Your task to perform on an android device: What's the weather today? Image 0: 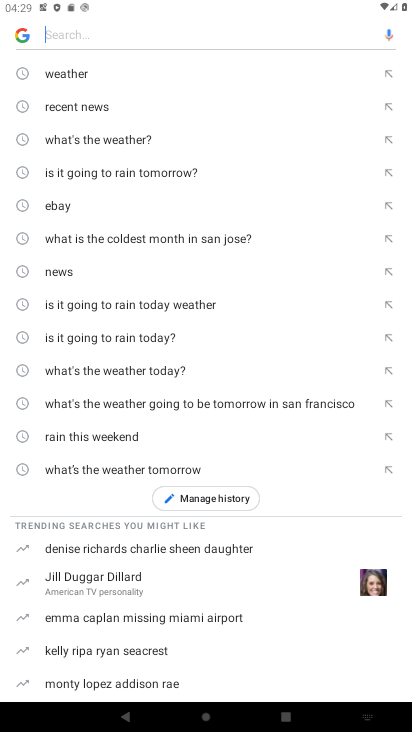
Step 0: press home button
Your task to perform on an android device: What's the weather today? Image 1: 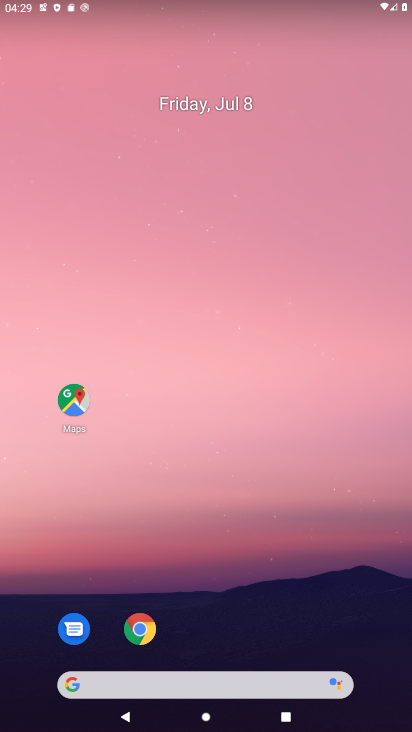
Step 1: drag from (234, 722) to (207, 130)
Your task to perform on an android device: What's the weather today? Image 2: 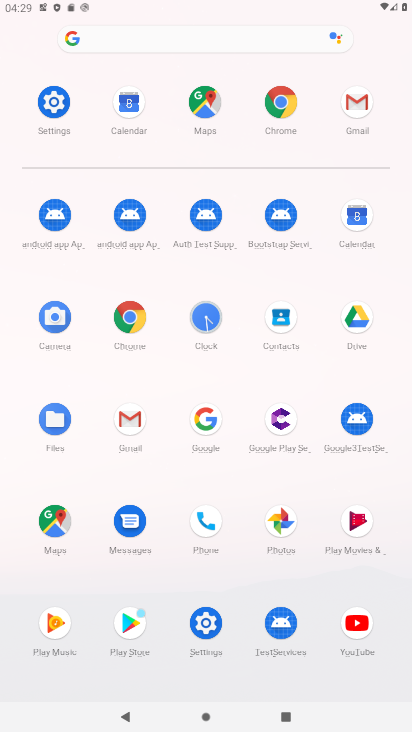
Step 2: click (209, 421)
Your task to perform on an android device: What's the weather today? Image 3: 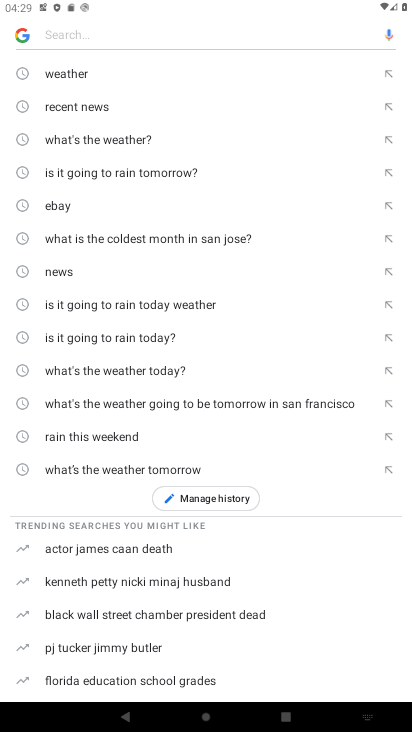
Step 3: click (60, 71)
Your task to perform on an android device: What's the weather today? Image 4: 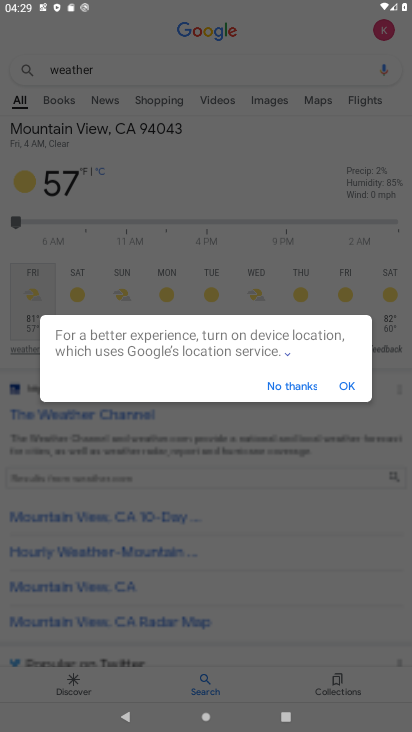
Step 4: click (295, 386)
Your task to perform on an android device: What's the weather today? Image 5: 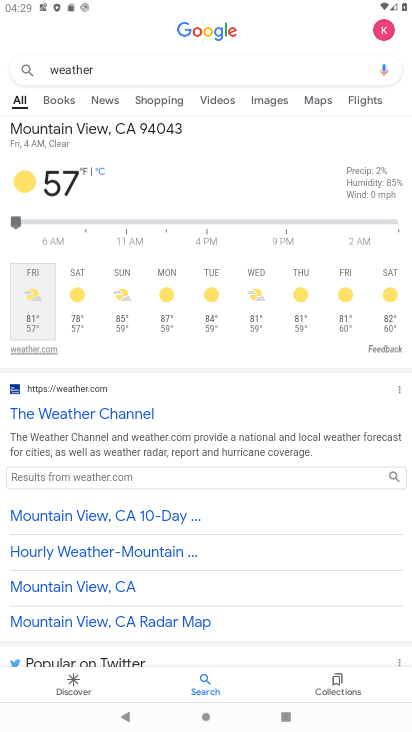
Step 5: task complete